Your task to perform on an android device: stop showing notifications on the lock screen Image 0: 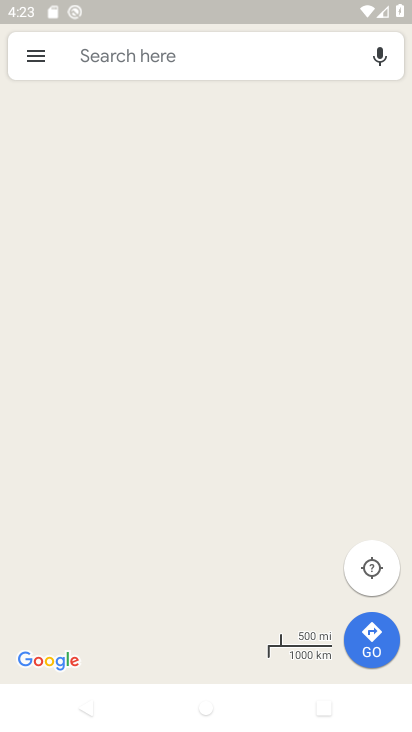
Step 0: press back button
Your task to perform on an android device: stop showing notifications on the lock screen Image 1: 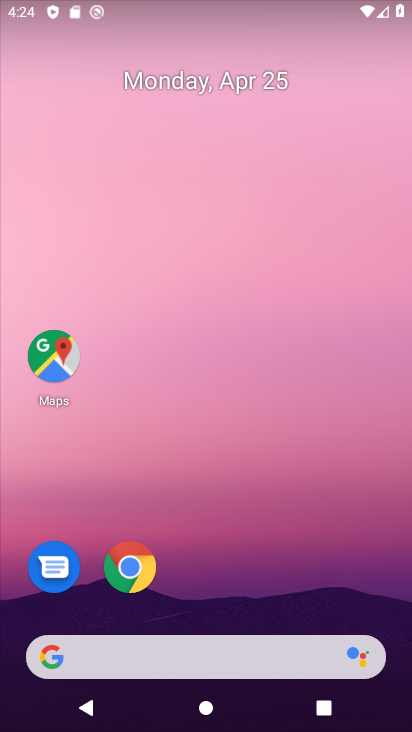
Step 1: drag from (238, 484) to (309, 8)
Your task to perform on an android device: stop showing notifications on the lock screen Image 2: 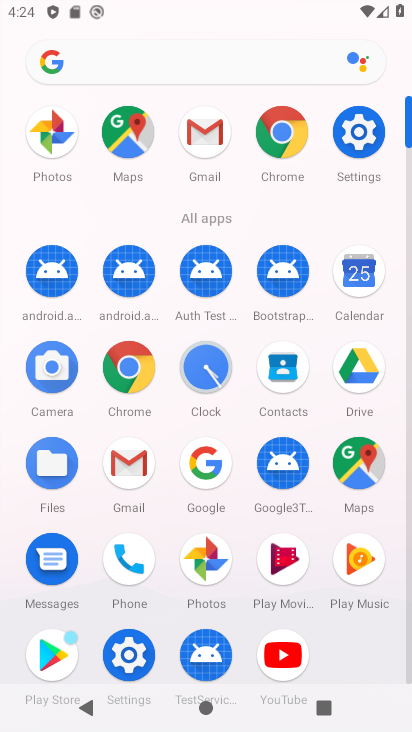
Step 2: click (362, 131)
Your task to perform on an android device: stop showing notifications on the lock screen Image 3: 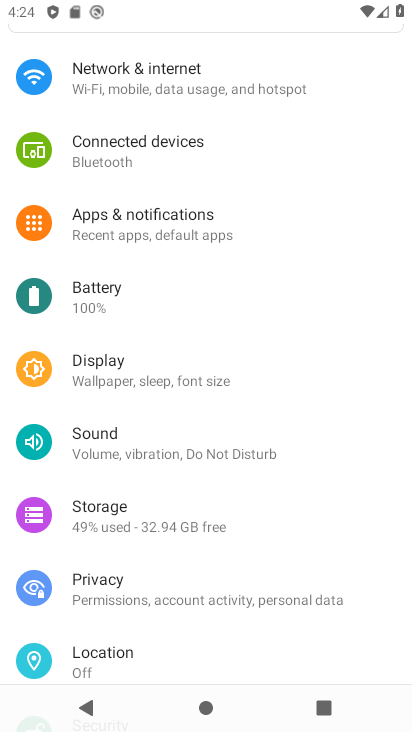
Step 3: click (195, 225)
Your task to perform on an android device: stop showing notifications on the lock screen Image 4: 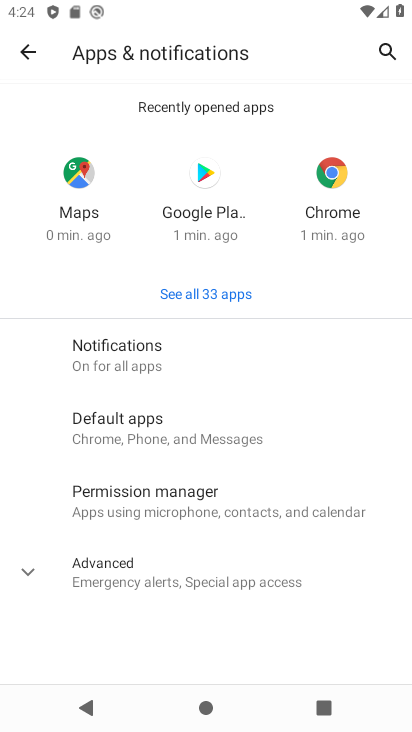
Step 4: click (163, 356)
Your task to perform on an android device: stop showing notifications on the lock screen Image 5: 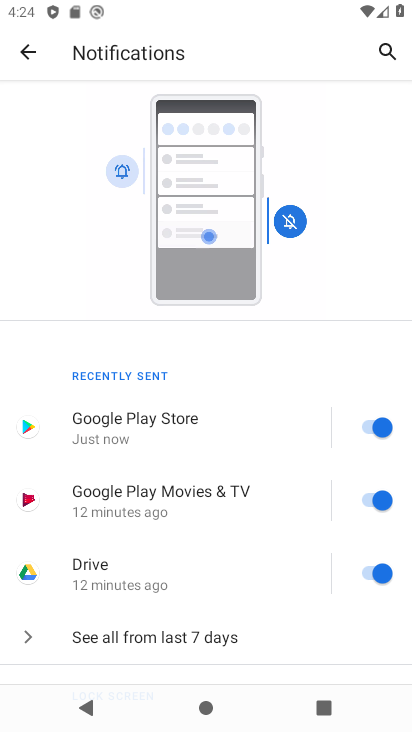
Step 5: drag from (140, 580) to (232, 137)
Your task to perform on an android device: stop showing notifications on the lock screen Image 6: 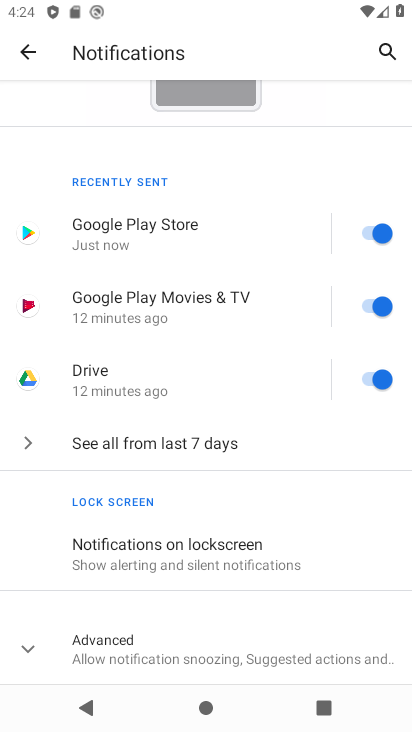
Step 6: click (167, 557)
Your task to perform on an android device: stop showing notifications on the lock screen Image 7: 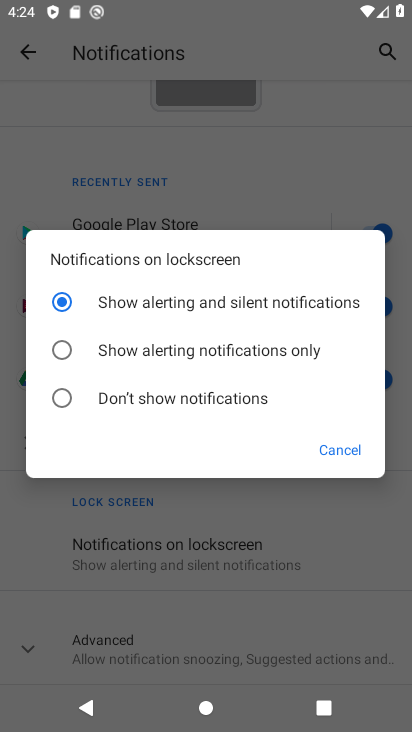
Step 7: click (88, 397)
Your task to perform on an android device: stop showing notifications on the lock screen Image 8: 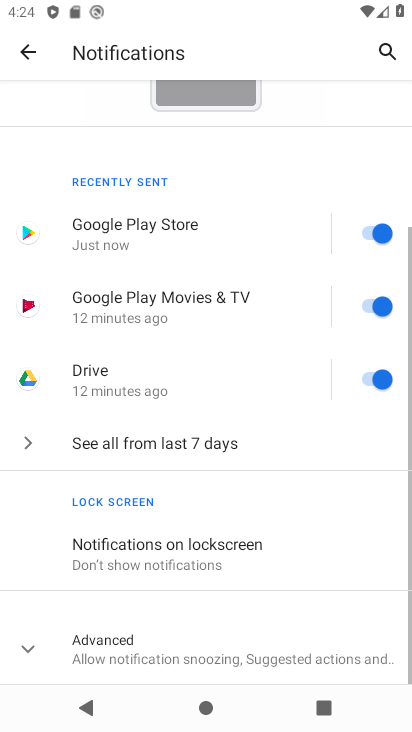
Step 8: task complete